Your task to perform on an android device: see tabs open on other devices in the chrome app Image 0: 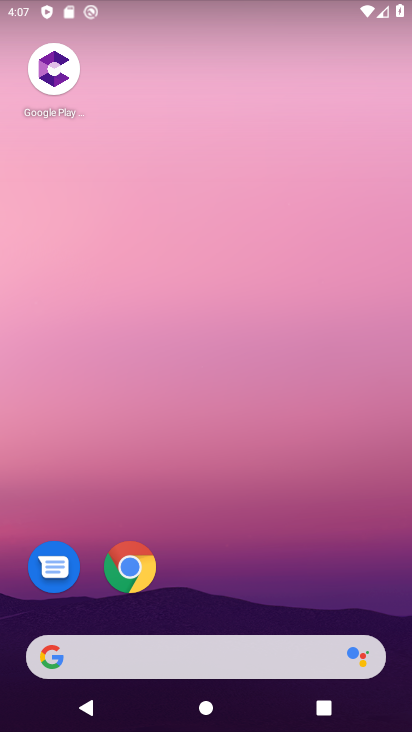
Step 0: click (133, 573)
Your task to perform on an android device: see tabs open on other devices in the chrome app Image 1: 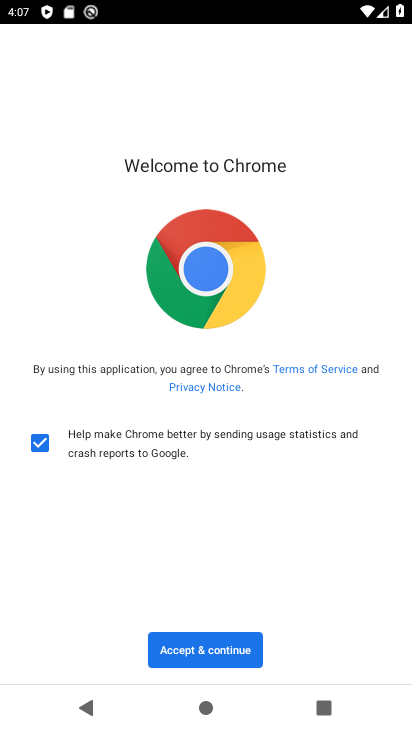
Step 1: click (217, 651)
Your task to perform on an android device: see tabs open on other devices in the chrome app Image 2: 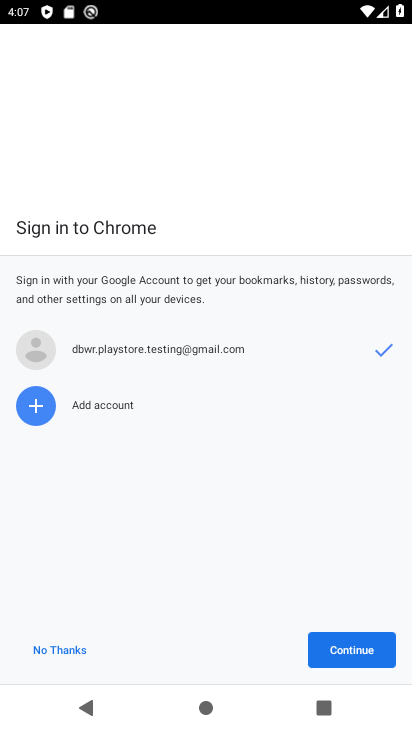
Step 2: click (355, 649)
Your task to perform on an android device: see tabs open on other devices in the chrome app Image 3: 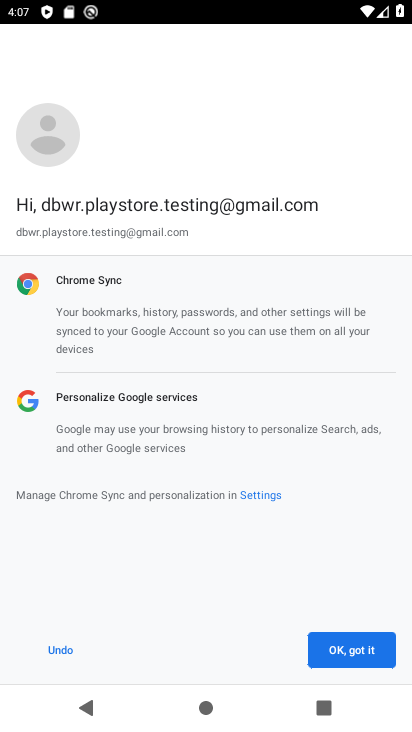
Step 3: click (355, 647)
Your task to perform on an android device: see tabs open on other devices in the chrome app Image 4: 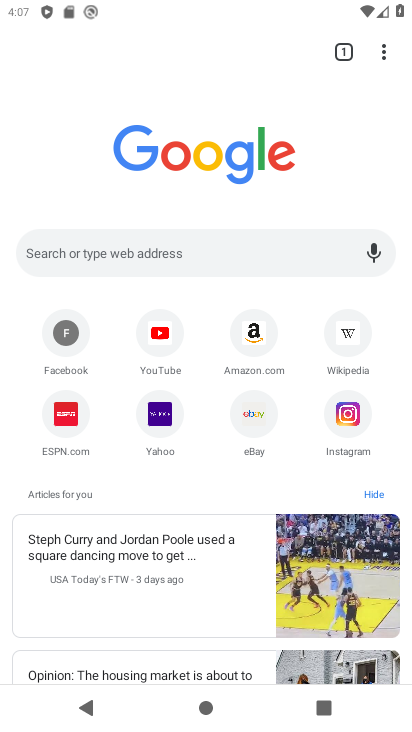
Step 4: drag from (385, 49) to (352, 299)
Your task to perform on an android device: see tabs open on other devices in the chrome app Image 5: 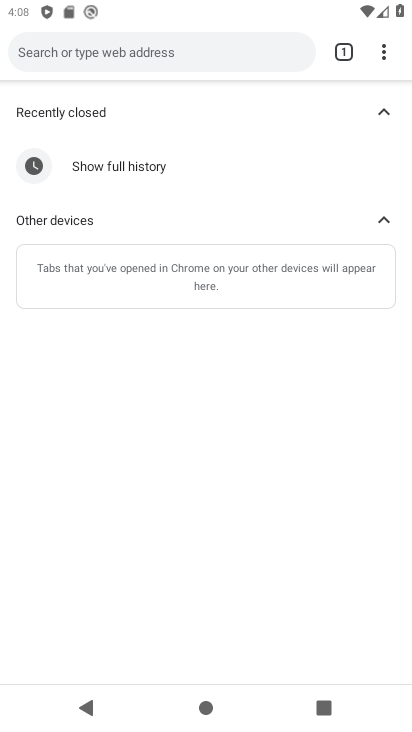
Step 5: click (386, 216)
Your task to perform on an android device: see tabs open on other devices in the chrome app Image 6: 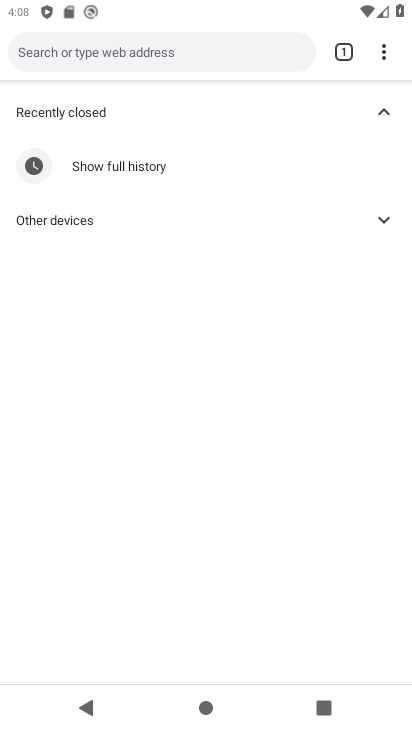
Step 6: click (386, 216)
Your task to perform on an android device: see tabs open on other devices in the chrome app Image 7: 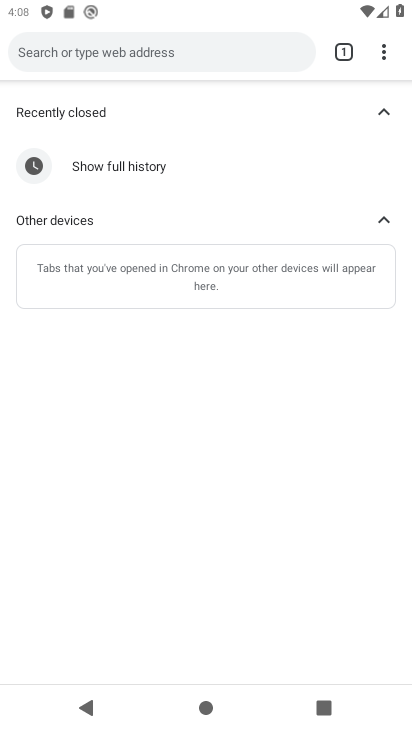
Step 7: task complete